Your task to perform on an android device: toggle sleep mode Image 0: 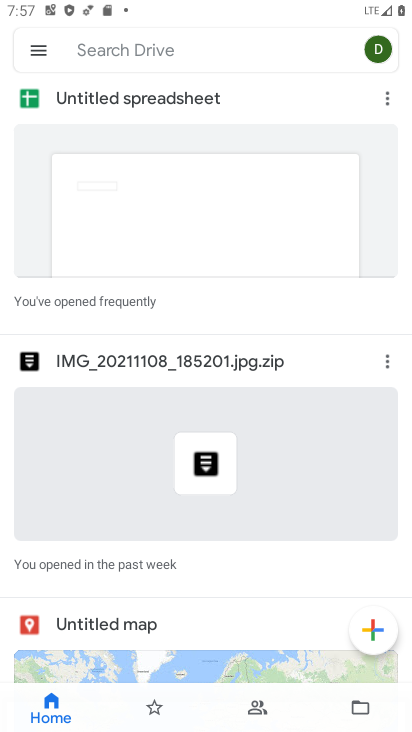
Step 0: press home button
Your task to perform on an android device: toggle sleep mode Image 1: 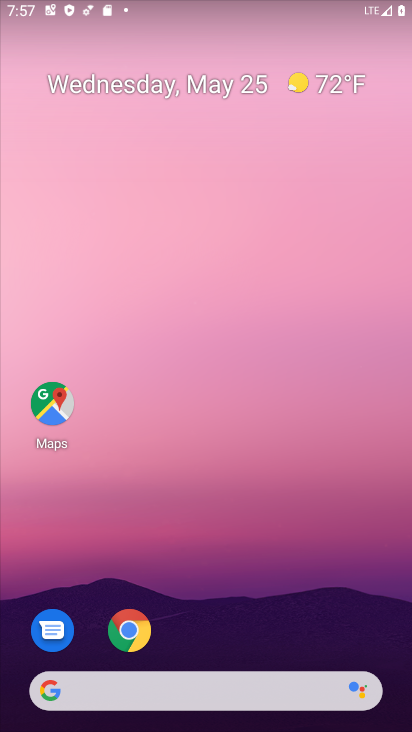
Step 1: click (224, 182)
Your task to perform on an android device: toggle sleep mode Image 2: 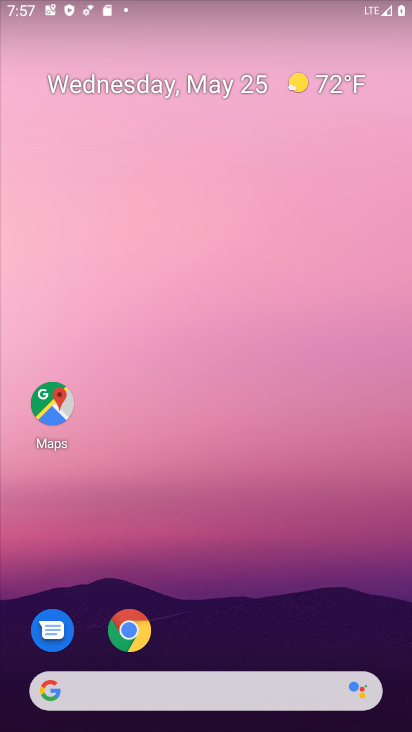
Step 2: drag from (220, 638) to (215, 182)
Your task to perform on an android device: toggle sleep mode Image 3: 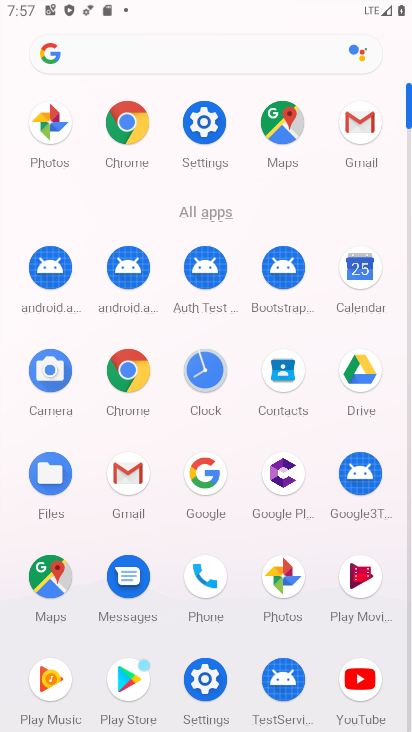
Step 3: click (209, 135)
Your task to perform on an android device: toggle sleep mode Image 4: 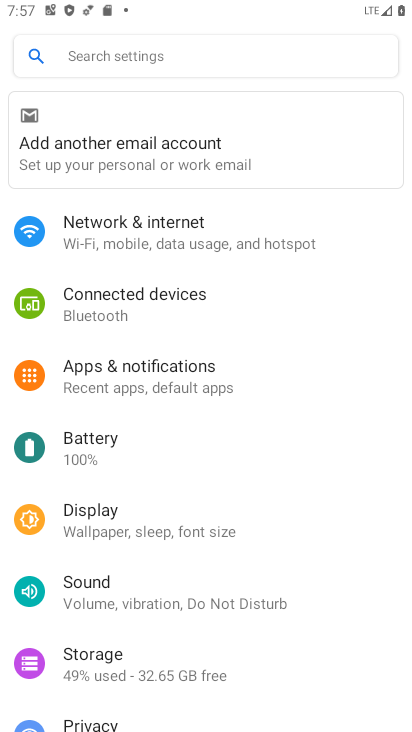
Step 4: click (167, 535)
Your task to perform on an android device: toggle sleep mode Image 5: 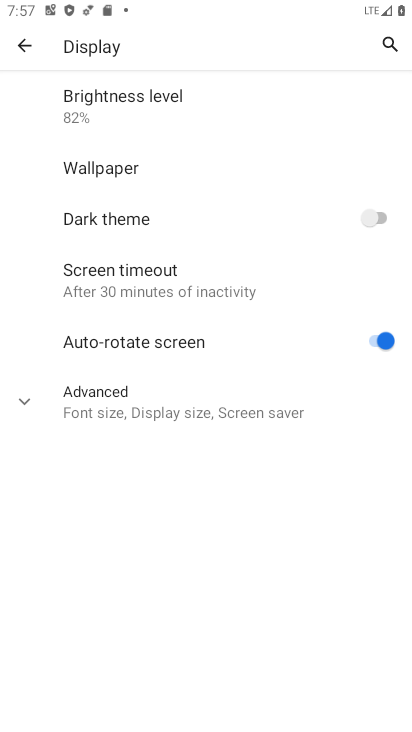
Step 5: click (147, 273)
Your task to perform on an android device: toggle sleep mode Image 6: 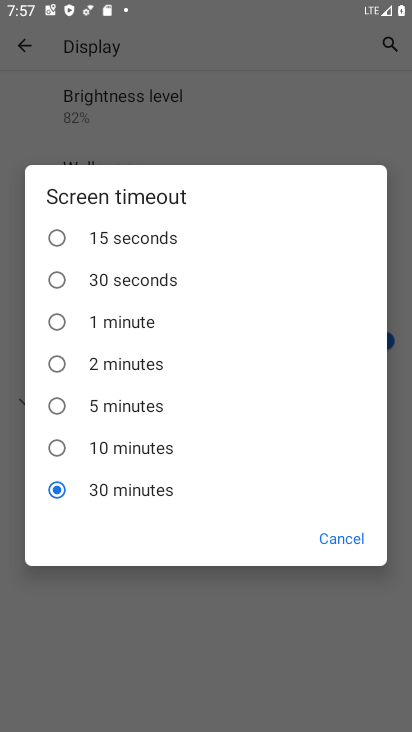
Step 6: click (147, 273)
Your task to perform on an android device: toggle sleep mode Image 7: 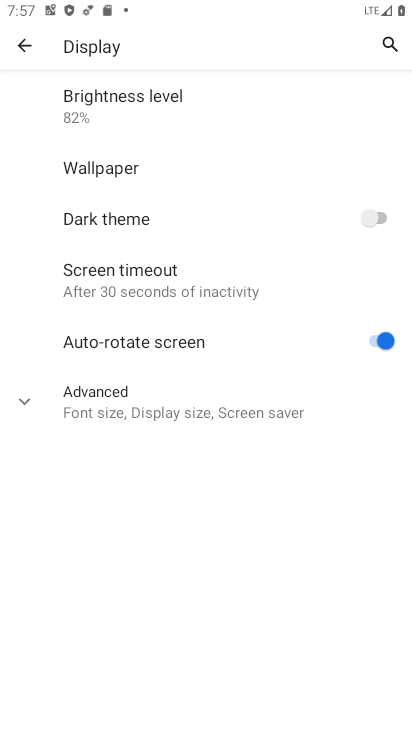
Step 7: task complete